Your task to perform on an android device: change the upload size in google photos Image 0: 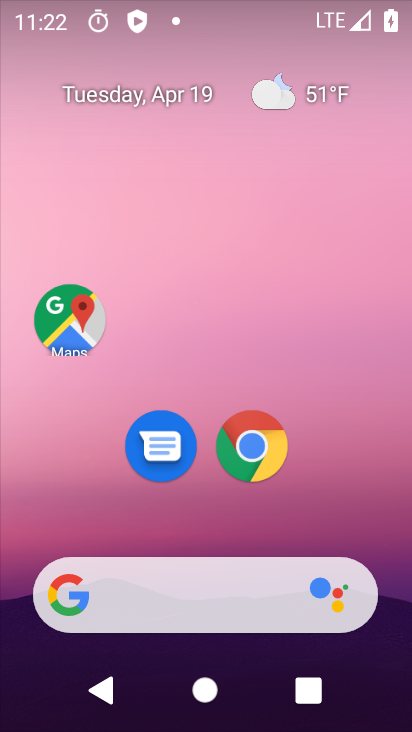
Step 0: click (359, 138)
Your task to perform on an android device: change the upload size in google photos Image 1: 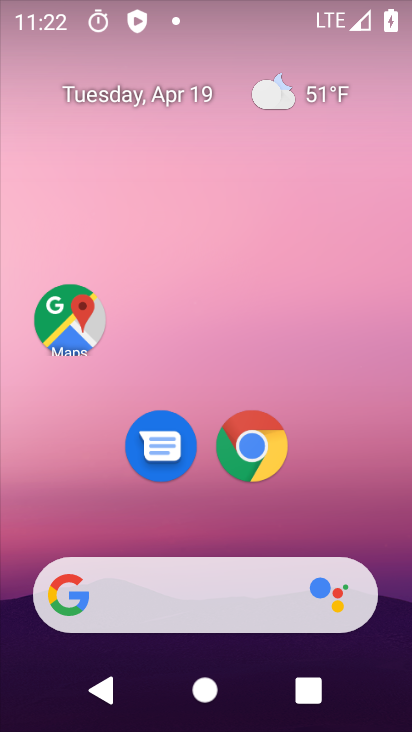
Step 1: drag from (353, 260) to (340, 87)
Your task to perform on an android device: change the upload size in google photos Image 2: 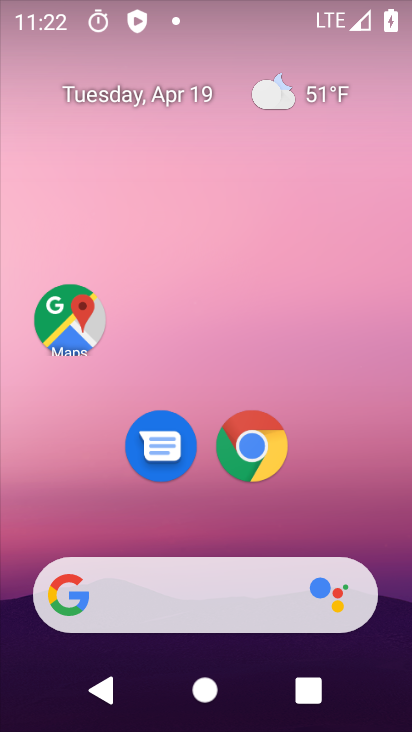
Step 2: drag from (382, 401) to (387, 14)
Your task to perform on an android device: change the upload size in google photos Image 3: 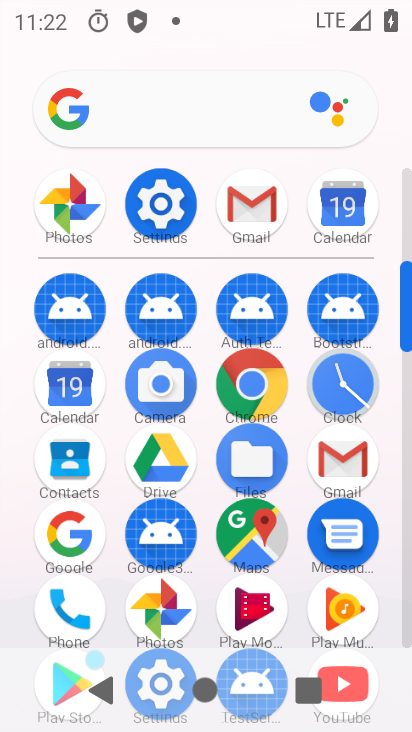
Step 3: click (170, 591)
Your task to perform on an android device: change the upload size in google photos Image 4: 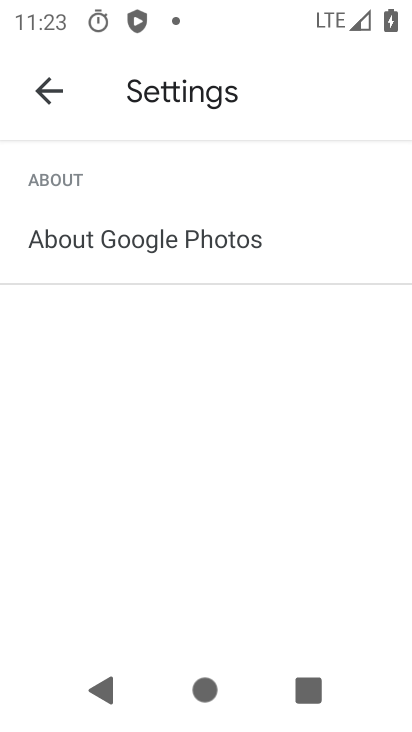
Step 4: click (47, 85)
Your task to perform on an android device: change the upload size in google photos Image 5: 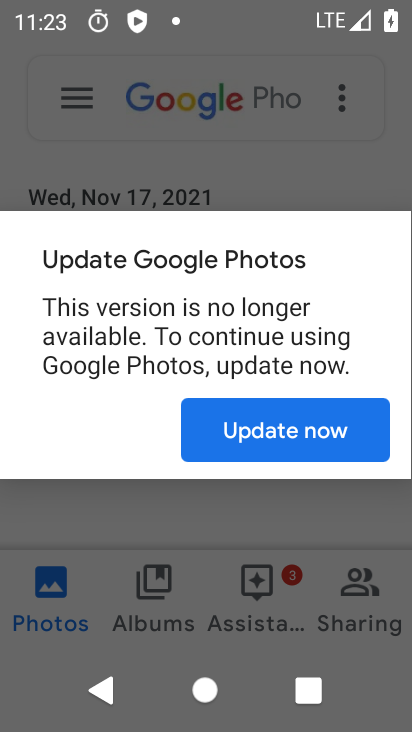
Step 5: click (273, 426)
Your task to perform on an android device: change the upload size in google photos Image 6: 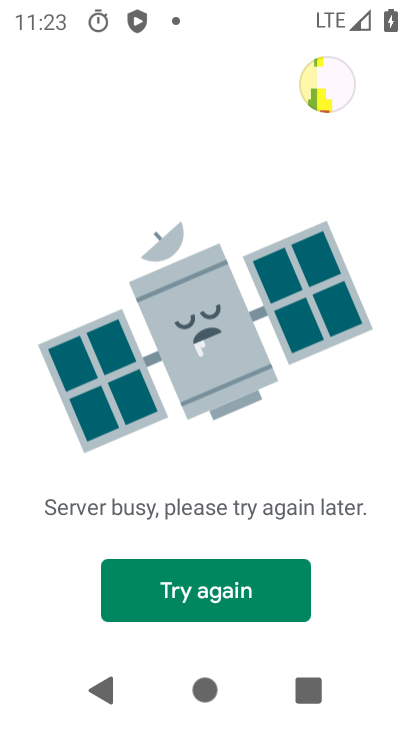
Step 6: task complete